Your task to perform on an android device: change text size in settings app Image 0: 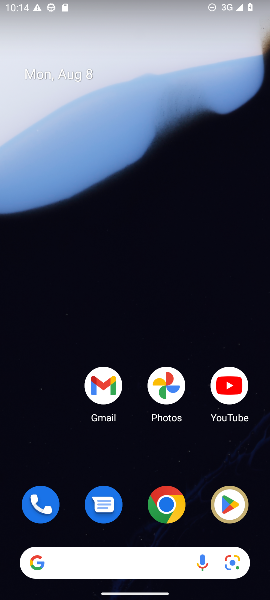
Step 0: drag from (136, 468) to (134, 96)
Your task to perform on an android device: change text size in settings app Image 1: 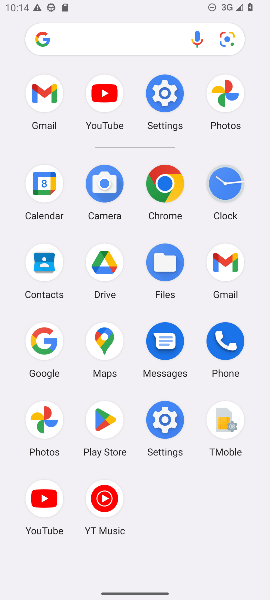
Step 1: click (160, 426)
Your task to perform on an android device: change text size in settings app Image 2: 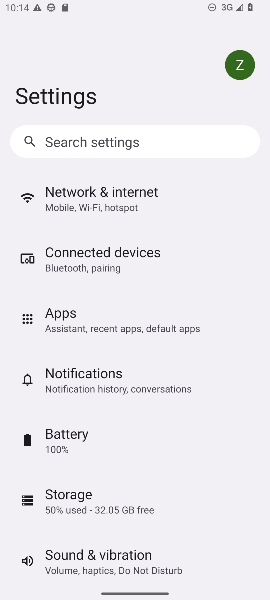
Step 2: drag from (127, 445) to (117, 237)
Your task to perform on an android device: change text size in settings app Image 3: 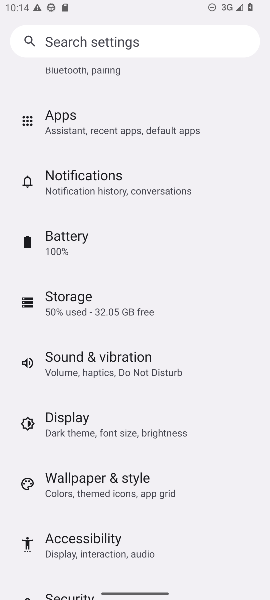
Step 3: click (73, 418)
Your task to perform on an android device: change text size in settings app Image 4: 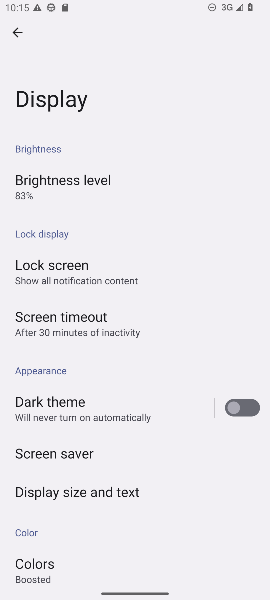
Step 4: drag from (100, 510) to (131, 381)
Your task to perform on an android device: change text size in settings app Image 5: 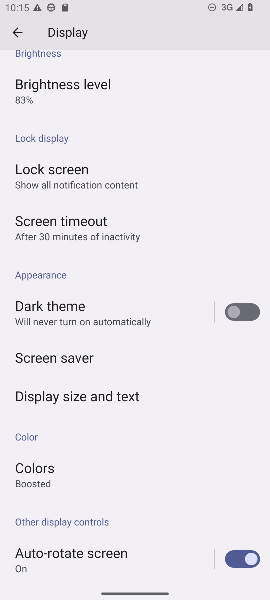
Step 5: drag from (93, 522) to (113, 327)
Your task to perform on an android device: change text size in settings app Image 6: 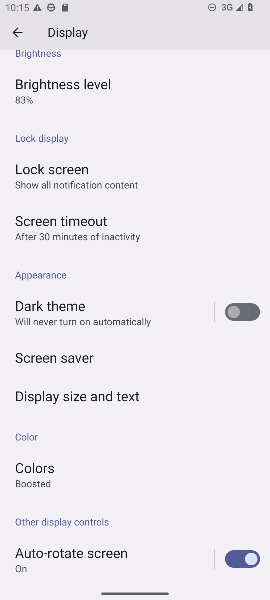
Step 6: drag from (121, 353) to (130, 510)
Your task to perform on an android device: change text size in settings app Image 7: 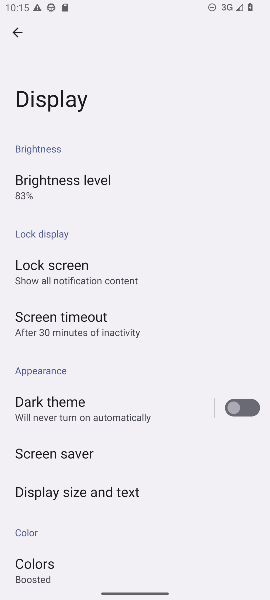
Step 7: click (89, 494)
Your task to perform on an android device: change text size in settings app Image 8: 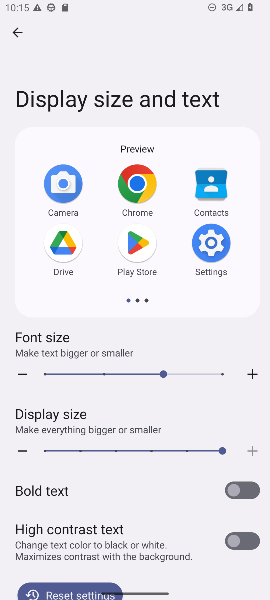
Step 8: click (104, 375)
Your task to perform on an android device: change text size in settings app Image 9: 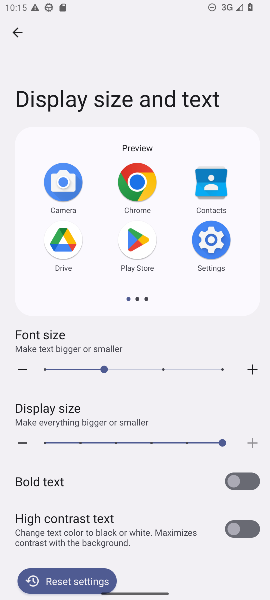
Step 9: task complete